Your task to perform on an android device: Go to accessibility settings Image 0: 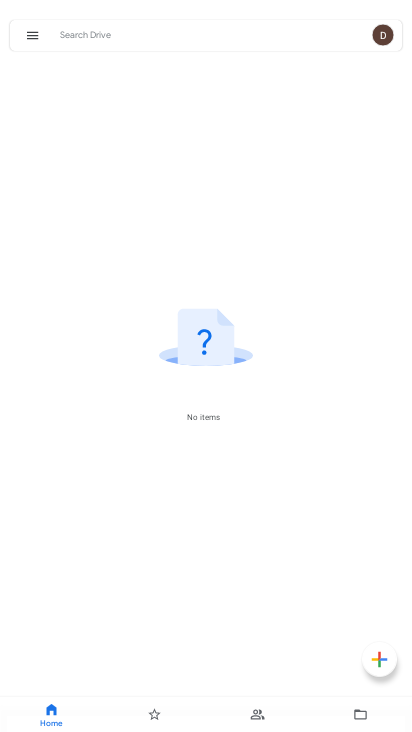
Step 0: press home button
Your task to perform on an android device: Go to accessibility settings Image 1: 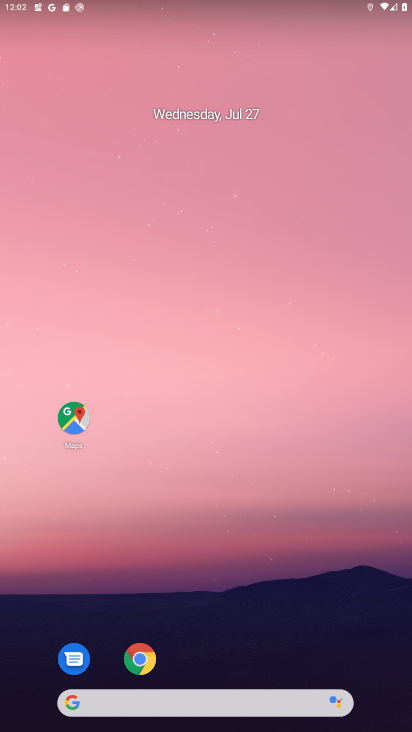
Step 1: drag from (250, 696) to (345, 0)
Your task to perform on an android device: Go to accessibility settings Image 2: 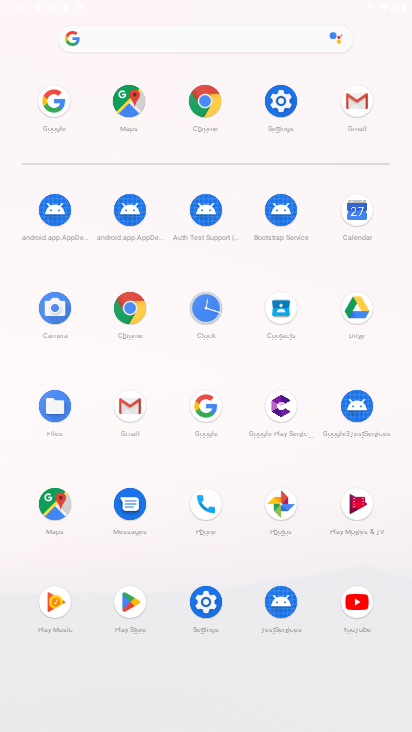
Step 2: click (285, 105)
Your task to perform on an android device: Go to accessibility settings Image 3: 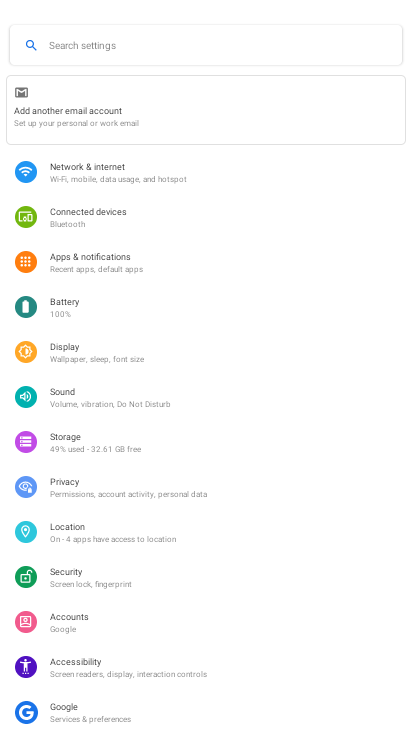
Step 3: click (118, 658)
Your task to perform on an android device: Go to accessibility settings Image 4: 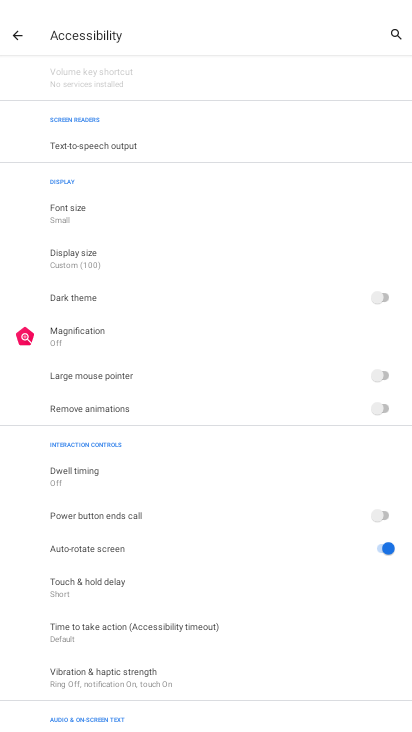
Step 4: task complete